Your task to perform on an android device: Open Google Maps and go to "Timeline" Image 0: 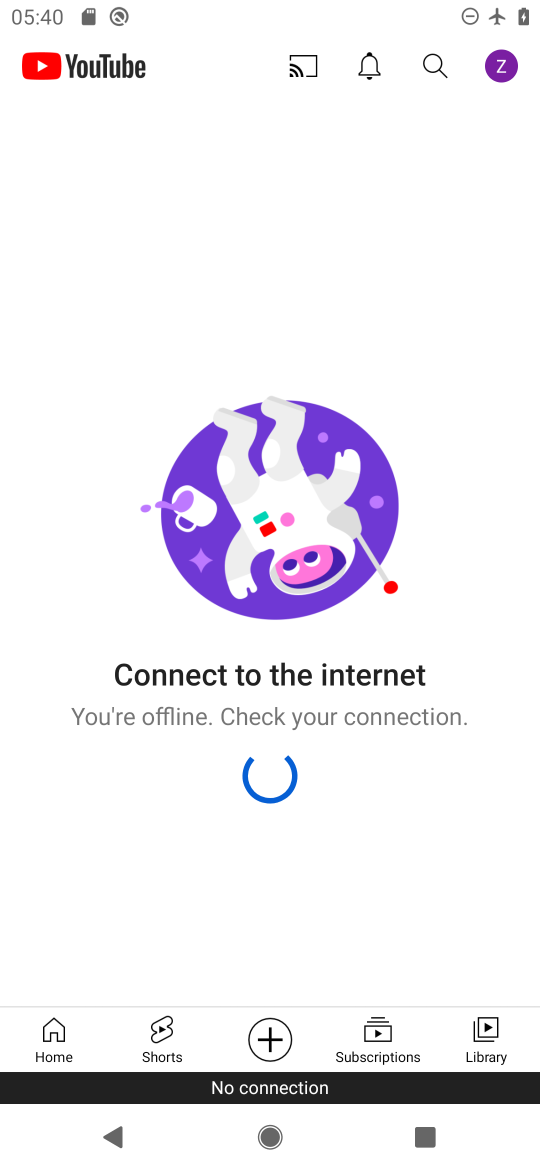
Step 0: press home button
Your task to perform on an android device: Open Google Maps and go to "Timeline" Image 1: 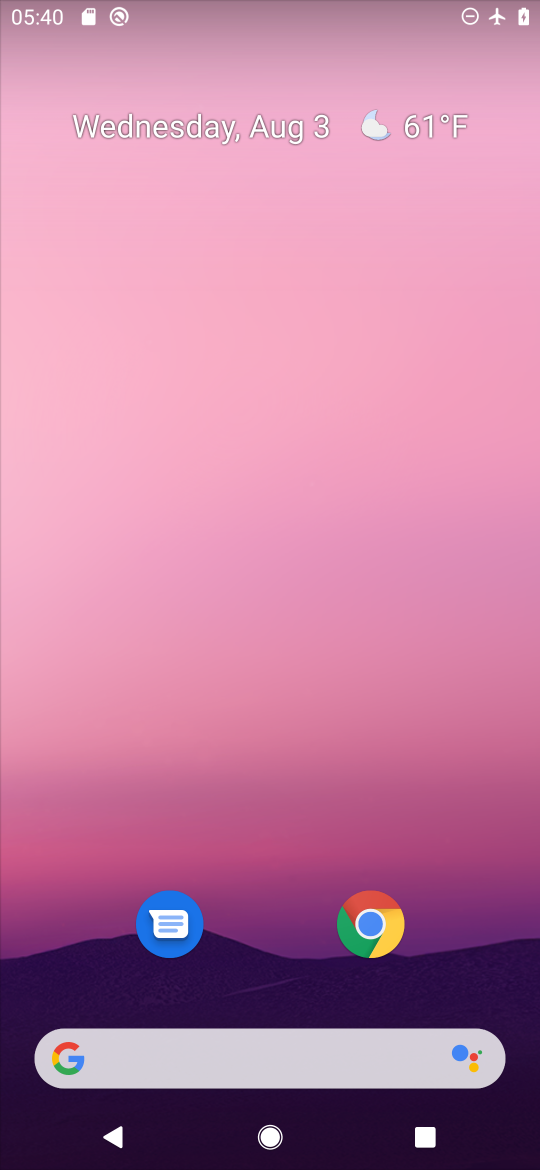
Step 1: drag from (260, 802) to (273, 198)
Your task to perform on an android device: Open Google Maps and go to "Timeline" Image 2: 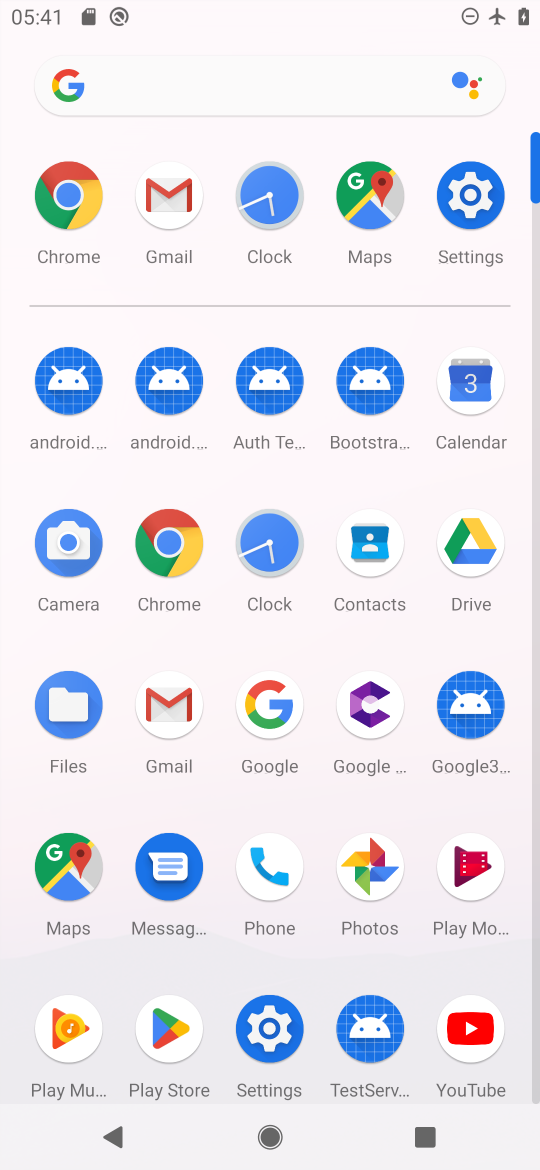
Step 2: click (165, 716)
Your task to perform on an android device: Open Google Maps and go to "Timeline" Image 3: 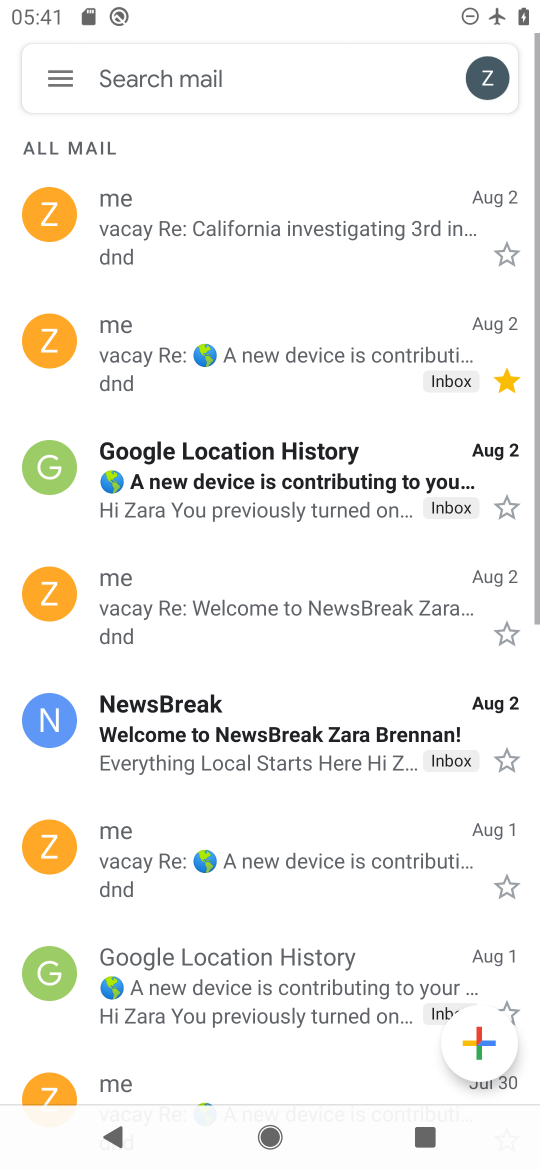
Step 3: press back button
Your task to perform on an android device: Open Google Maps and go to "Timeline" Image 4: 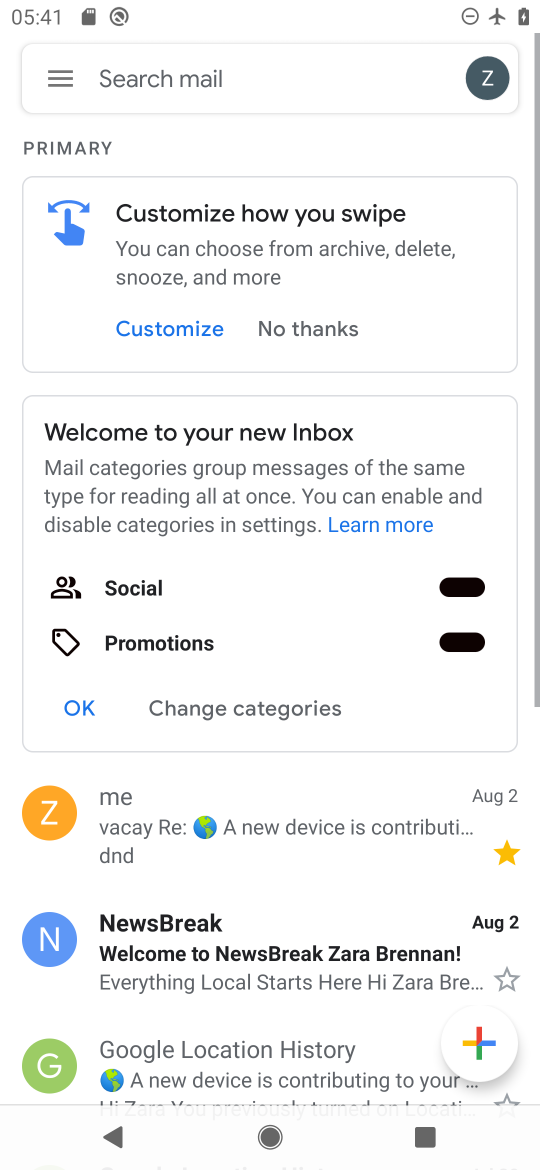
Step 4: press home button
Your task to perform on an android device: Open Google Maps and go to "Timeline" Image 5: 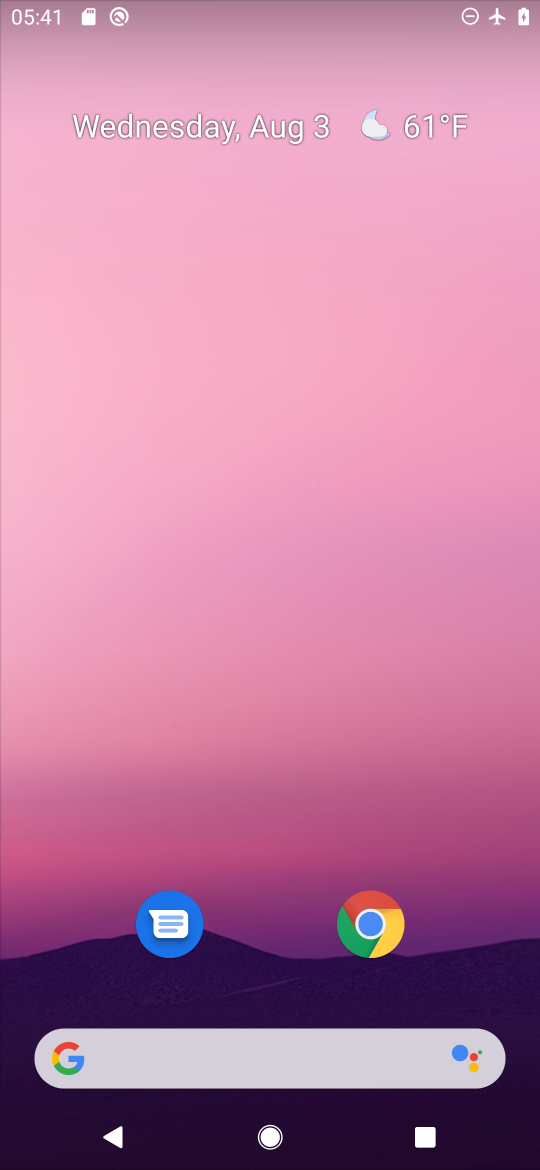
Step 5: drag from (262, 824) to (229, 217)
Your task to perform on an android device: Open Google Maps and go to "Timeline" Image 6: 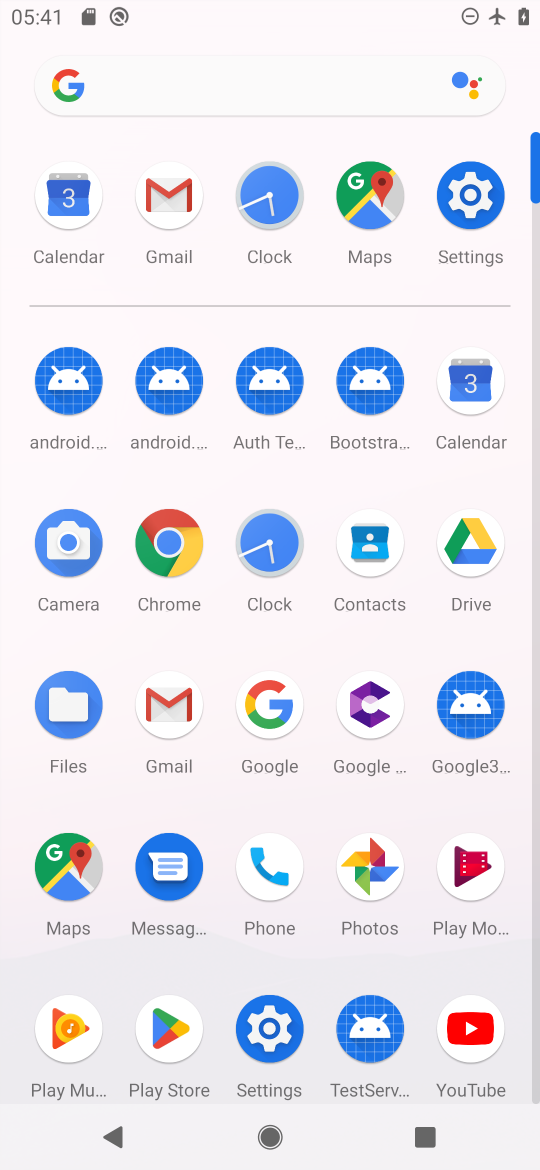
Step 6: click (360, 212)
Your task to perform on an android device: Open Google Maps and go to "Timeline" Image 7: 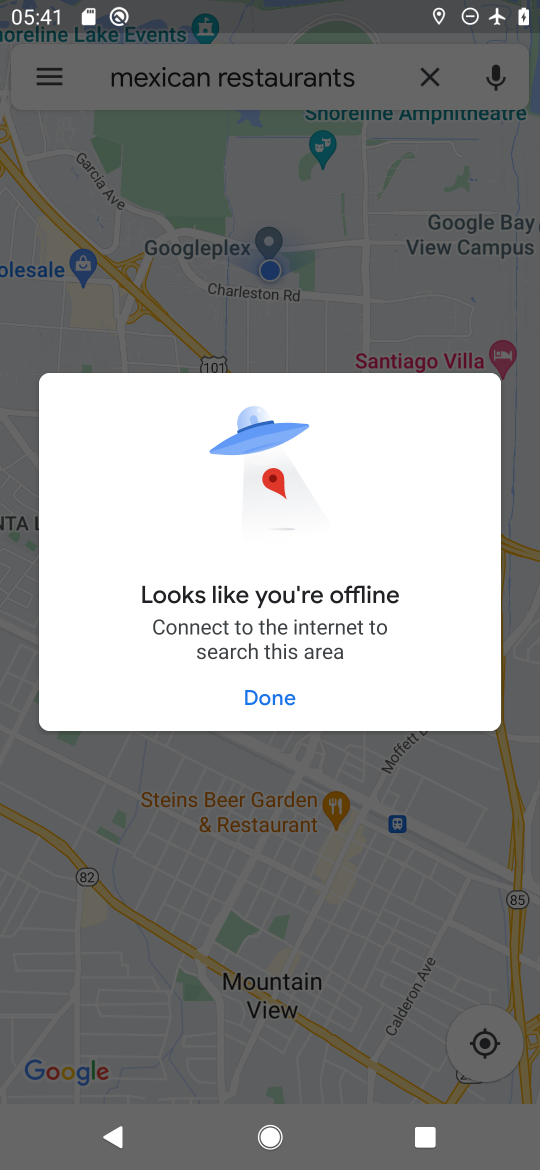
Step 7: task complete